Your task to perform on an android device: What is the recent news? Image 0: 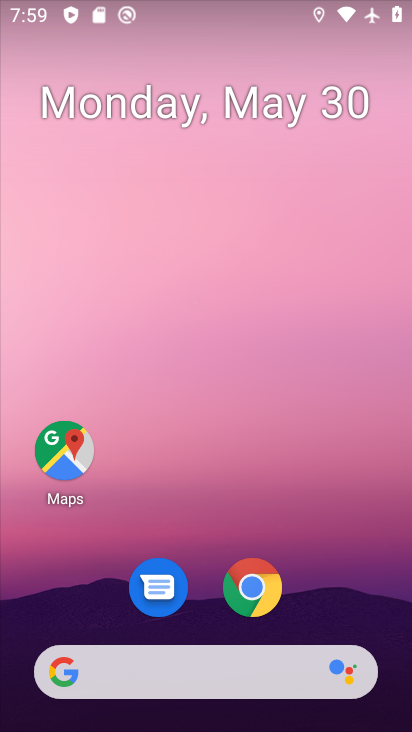
Step 0: press home button
Your task to perform on an android device: What is the recent news? Image 1: 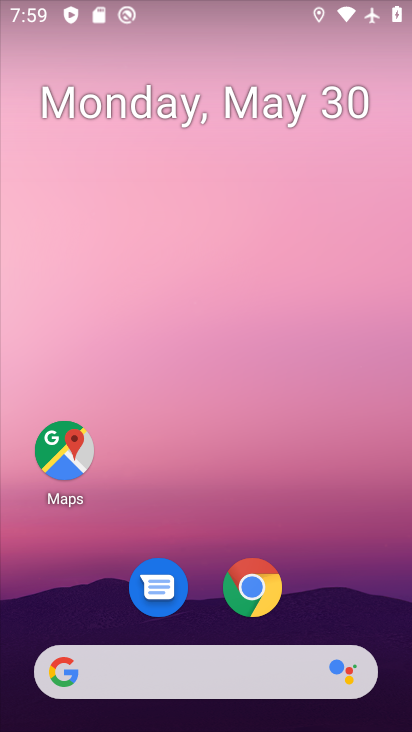
Step 1: click (72, 671)
Your task to perform on an android device: What is the recent news? Image 2: 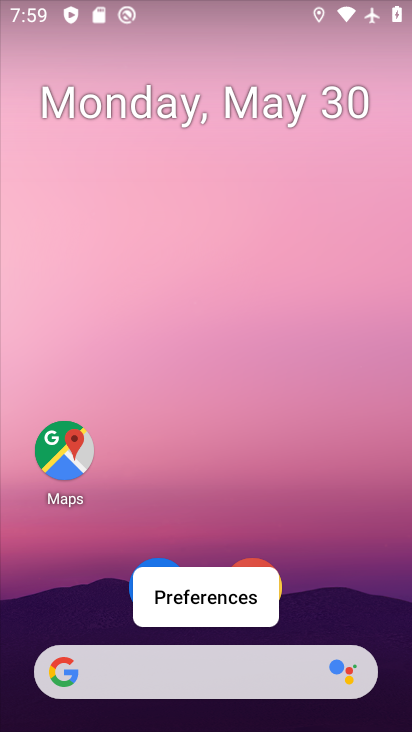
Step 2: click (69, 674)
Your task to perform on an android device: What is the recent news? Image 3: 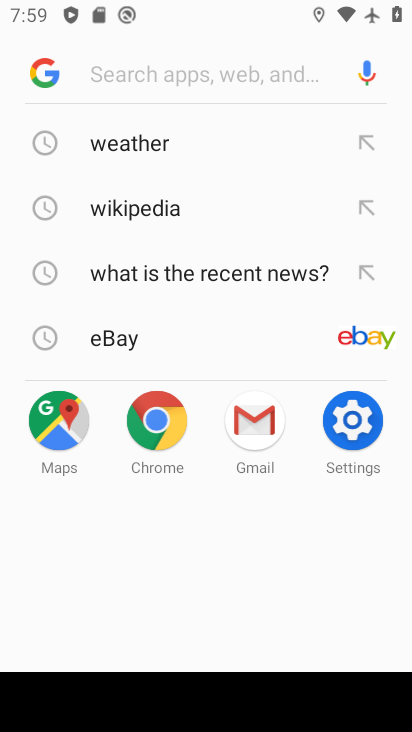
Step 3: click (183, 275)
Your task to perform on an android device: What is the recent news? Image 4: 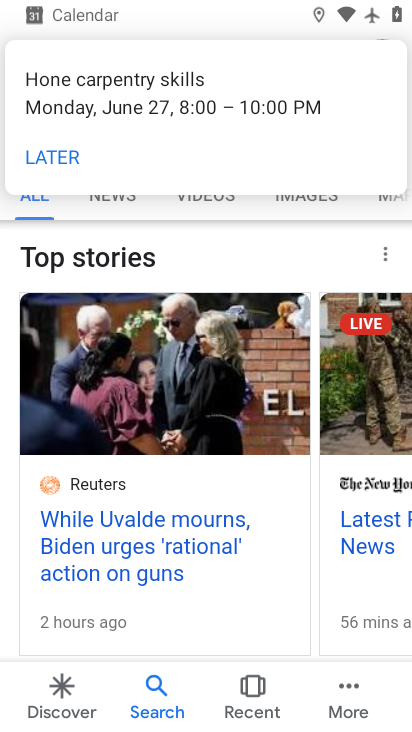
Step 4: click (119, 197)
Your task to perform on an android device: What is the recent news? Image 5: 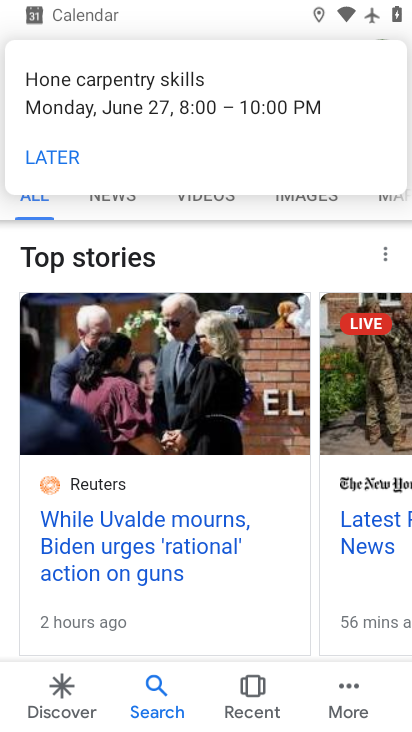
Step 5: click (59, 157)
Your task to perform on an android device: What is the recent news? Image 6: 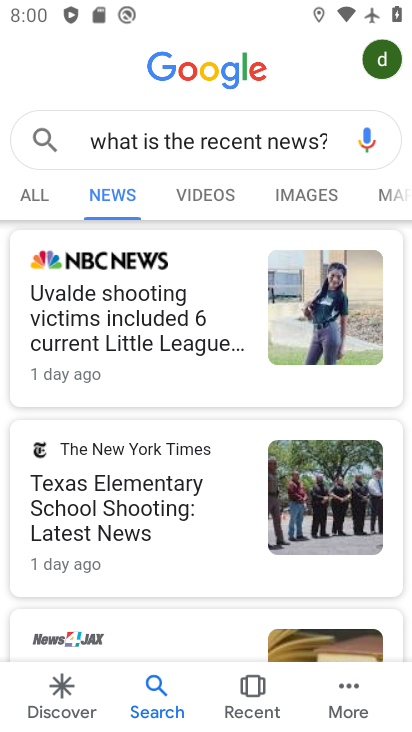
Step 6: task complete